Your task to perform on an android device: Open display settings Image 0: 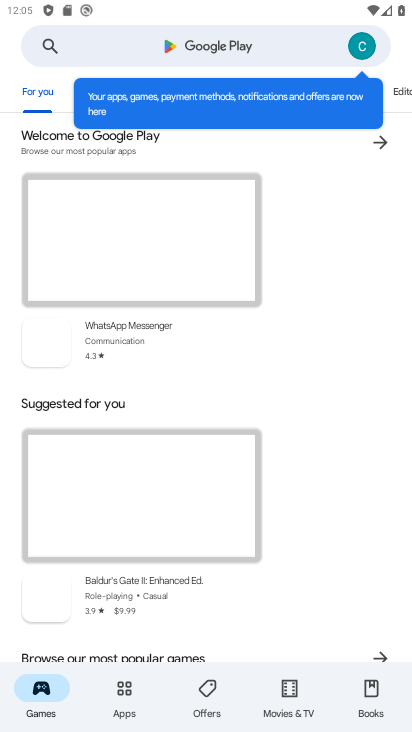
Step 0: press home button
Your task to perform on an android device: Open display settings Image 1: 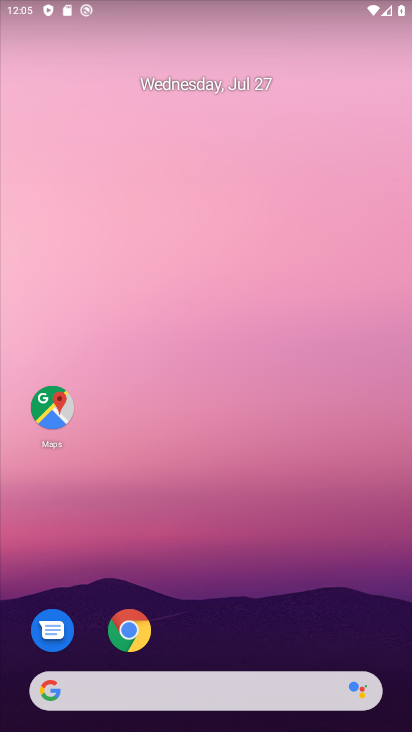
Step 1: drag from (182, 635) to (178, 93)
Your task to perform on an android device: Open display settings Image 2: 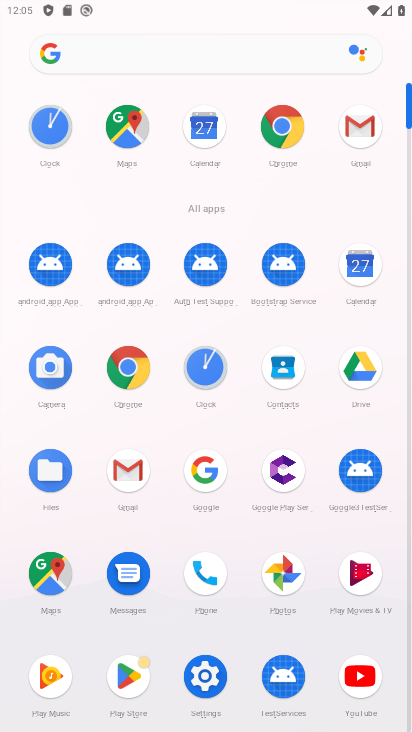
Step 2: click (208, 672)
Your task to perform on an android device: Open display settings Image 3: 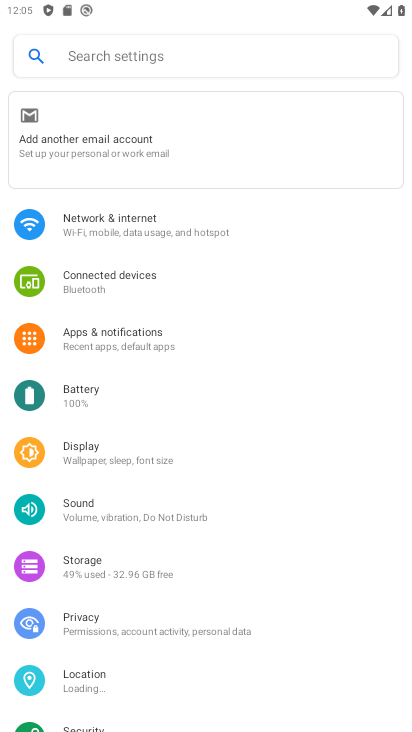
Step 3: click (107, 458)
Your task to perform on an android device: Open display settings Image 4: 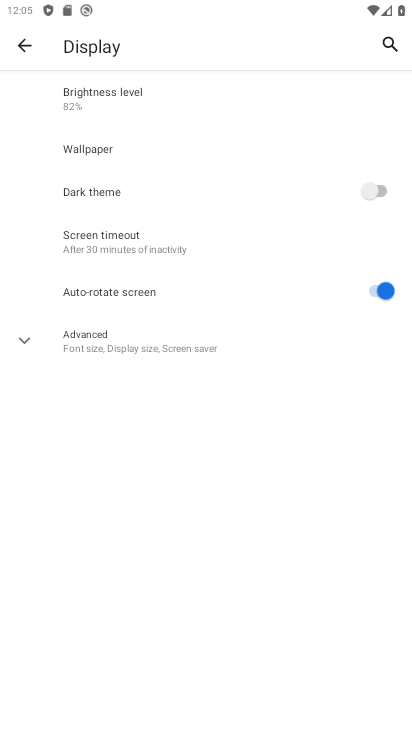
Step 4: task complete